Your task to perform on an android device: search for starred emails in the gmail app Image 0: 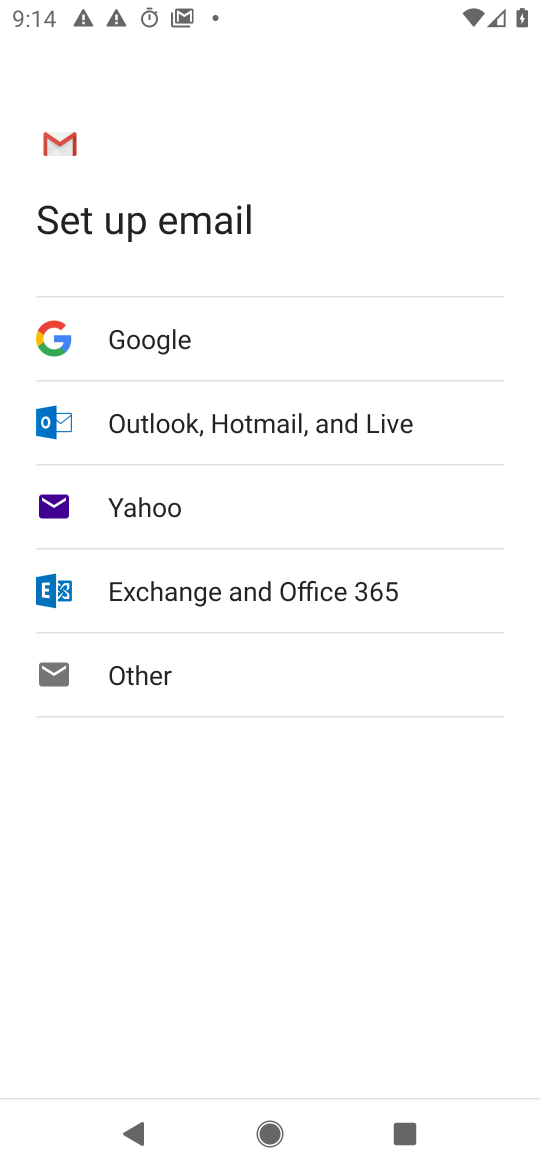
Step 0: press back button
Your task to perform on an android device: search for starred emails in the gmail app Image 1: 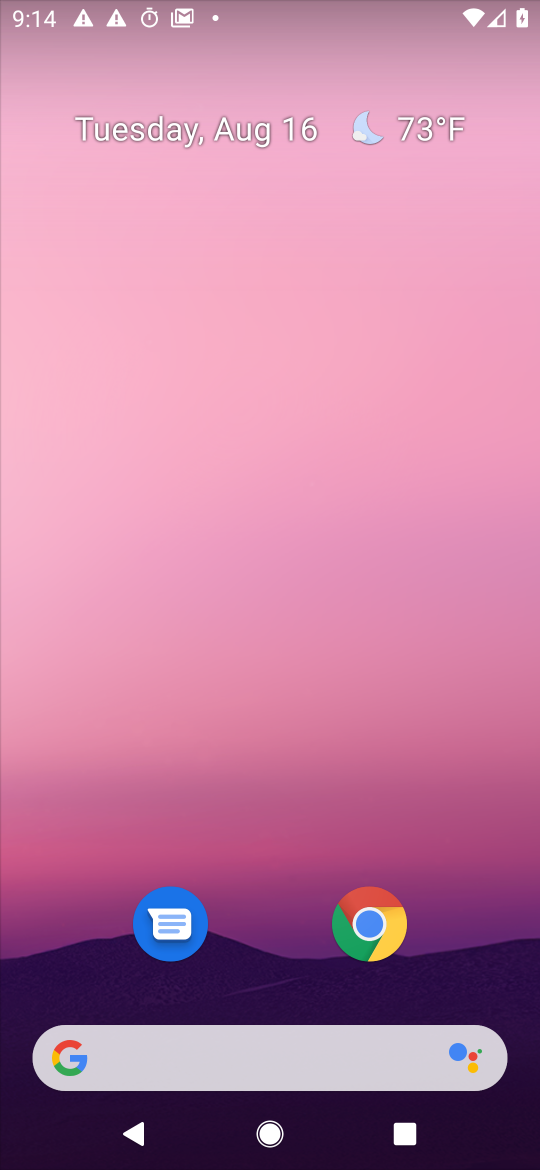
Step 1: drag from (273, 801) to (335, 65)
Your task to perform on an android device: search for starred emails in the gmail app Image 2: 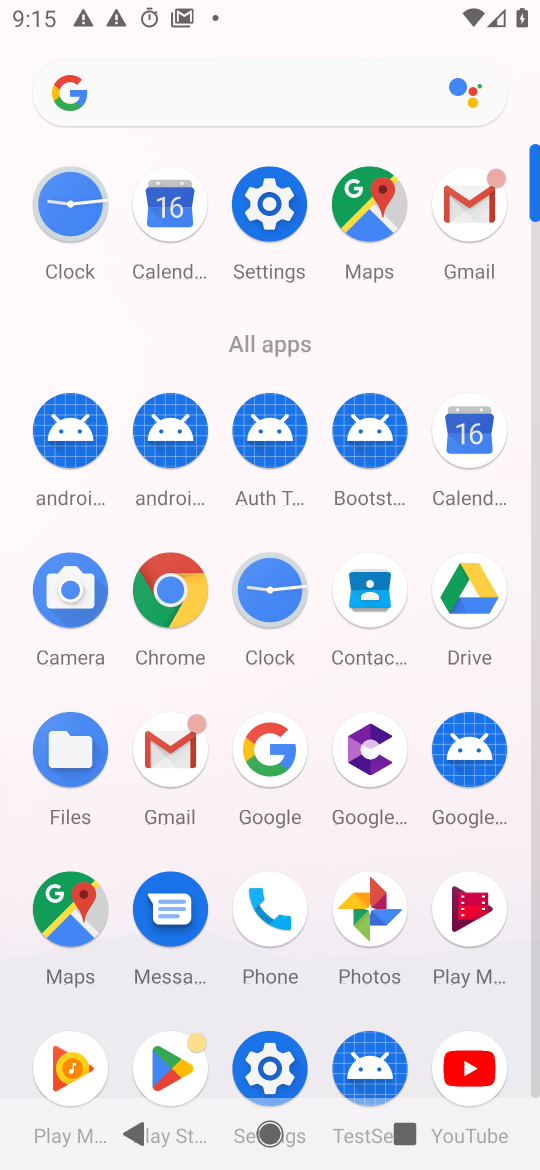
Step 2: click (458, 209)
Your task to perform on an android device: search for starred emails in the gmail app Image 3: 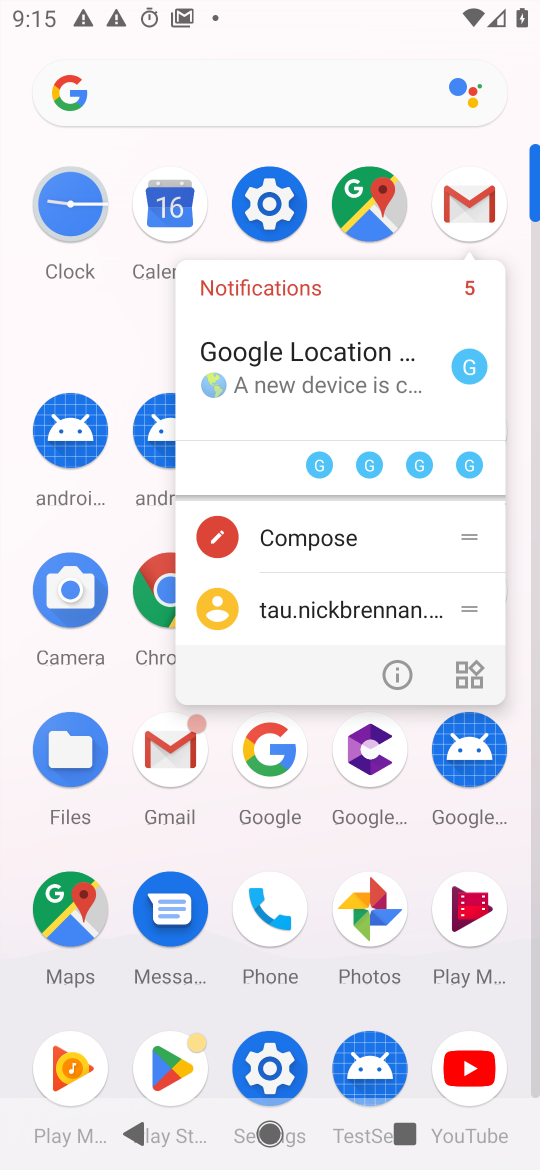
Step 3: click (461, 211)
Your task to perform on an android device: search for starred emails in the gmail app Image 4: 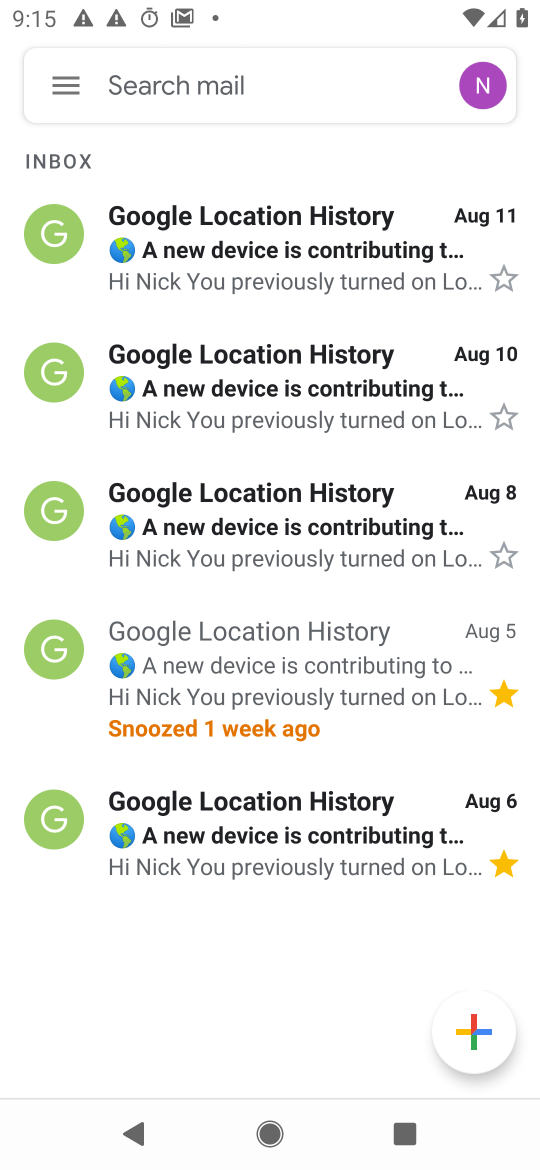
Step 4: click (61, 78)
Your task to perform on an android device: search for starred emails in the gmail app Image 5: 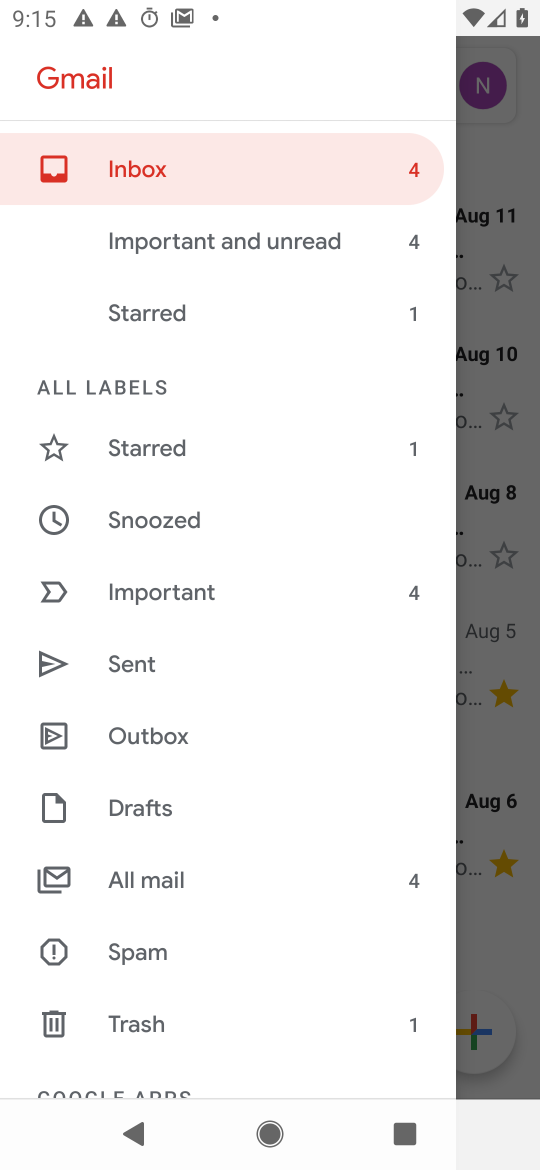
Step 5: click (132, 435)
Your task to perform on an android device: search for starred emails in the gmail app Image 6: 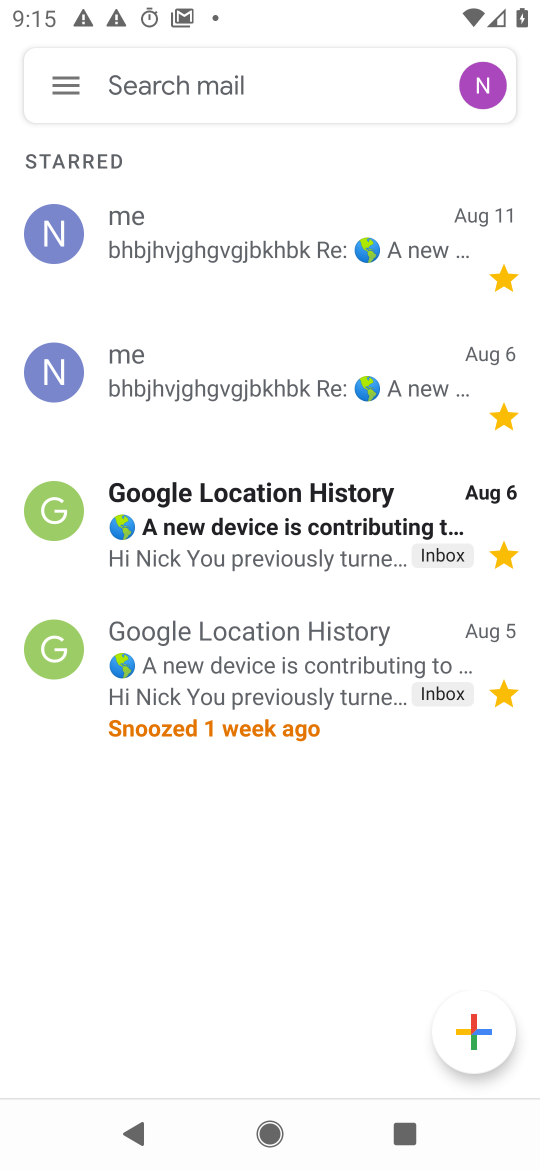
Step 6: task complete